Your task to perform on an android device: Go to sound settings Image 0: 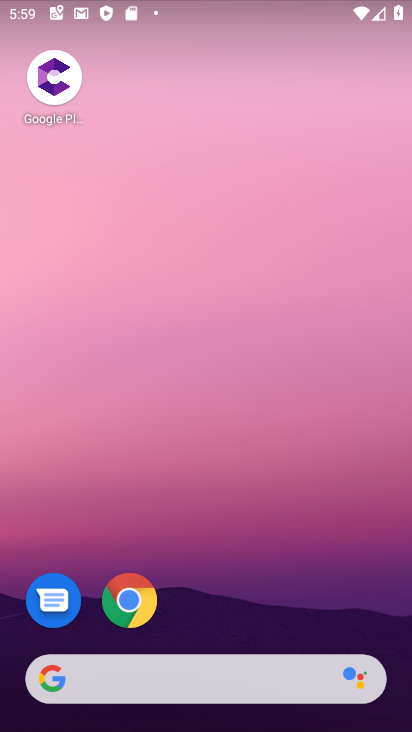
Step 0: press home button
Your task to perform on an android device: Go to sound settings Image 1: 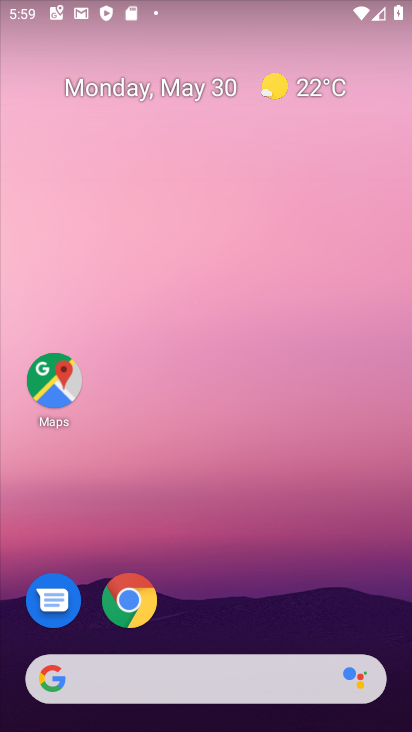
Step 1: drag from (256, 622) to (191, 111)
Your task to perform on an android device: Go to sound settings Image 2: 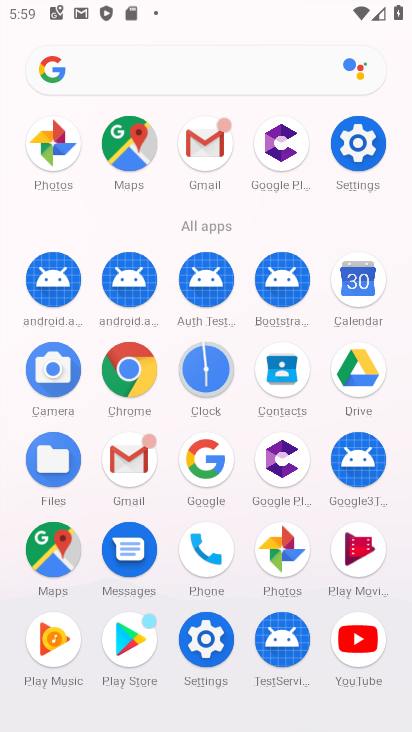
Step 2: click (352, 147)
Your task to perform on an android device: Go to sound settings Image 3: 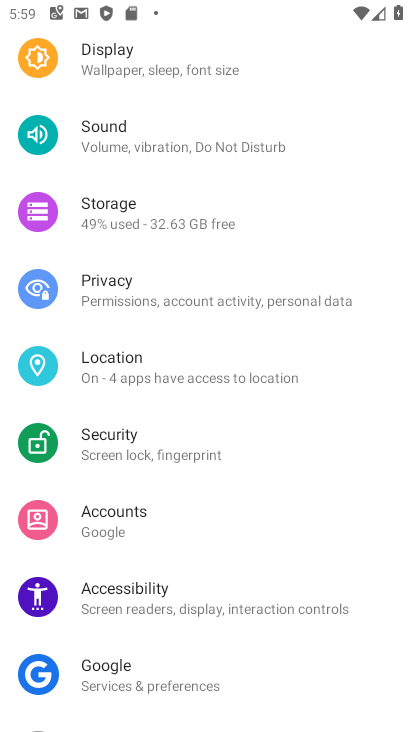
Step 3: click (113, 134)
Your task to perform on an android device: Go to sound settings Image 4: 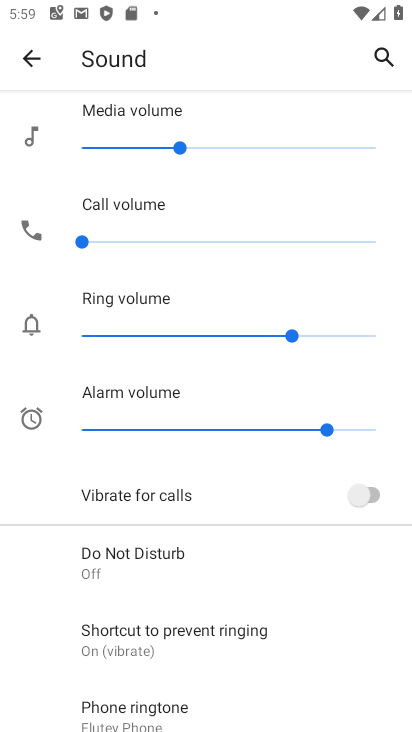
Step 4: task complete